Your task to perform on an android device: Show me the alarms in the clock app Image 0: 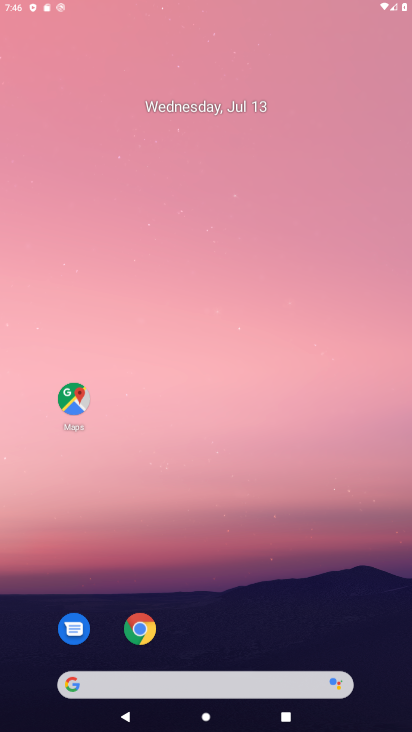
Step 0: click (108, 680)
Your task to perform on an android device: Show me the alarms in the clock app Image 1: 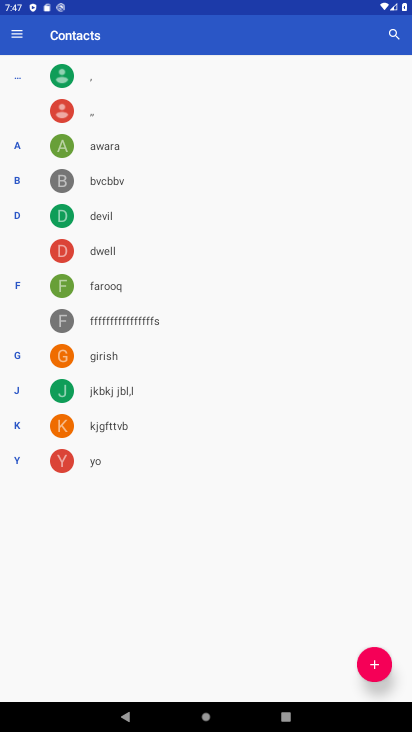
Step 1: press home button
Your task to perform on an android device: Show me the alarms in the clock app Image 2: 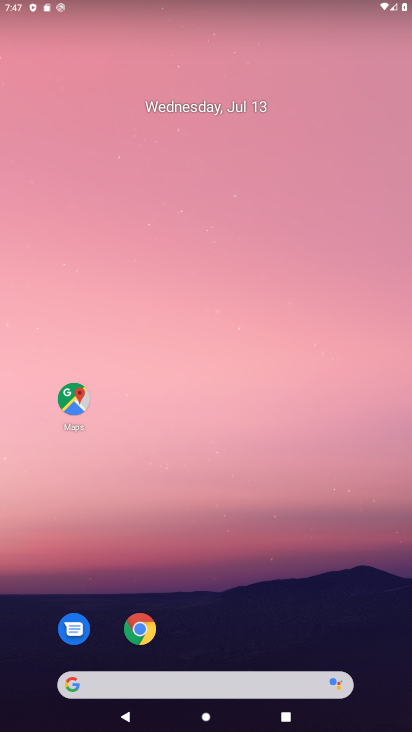
Step 2: drag from (16, 702) to (237, 69)
Your task to perform on an android device: Show me the alarms in the clock app Image 3: 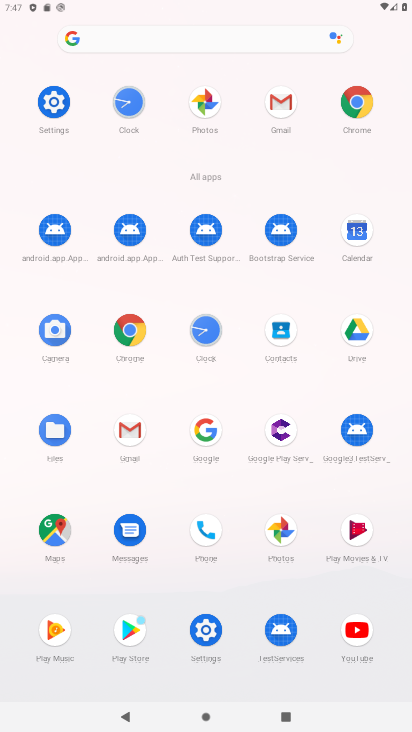
Step 3: click (198, 327)
Your task to perform on an android device: Show me the alarms in the clock app Image 4: 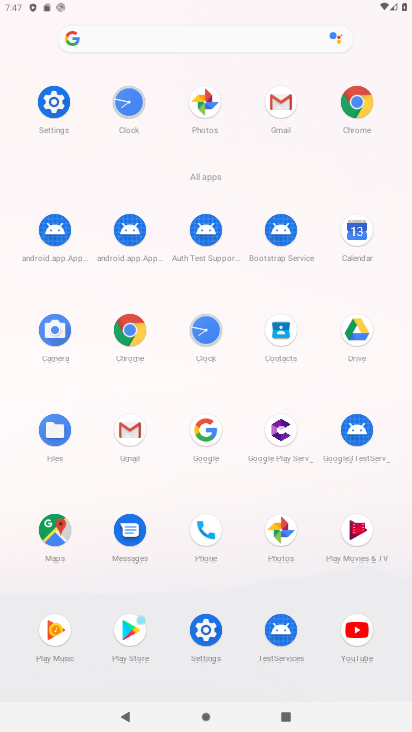
Step 4: click (198, 325)
Your task to perform on an android device: Show me the alarms in the clock app Image 5: 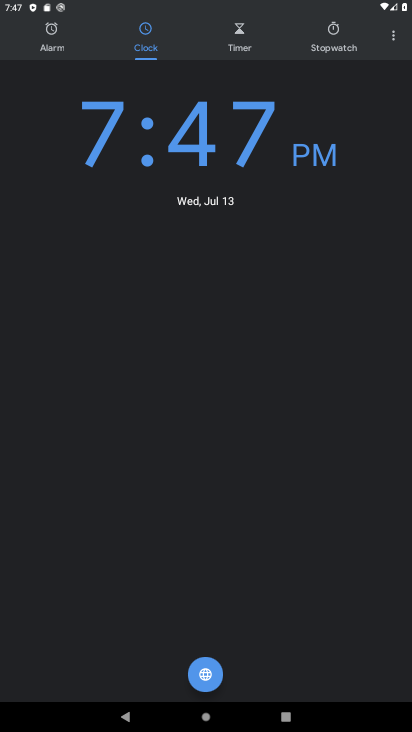
Step 5: click (53, 32)
Your task to perform on an android device: Show me the alarms in the clock app Image 6: 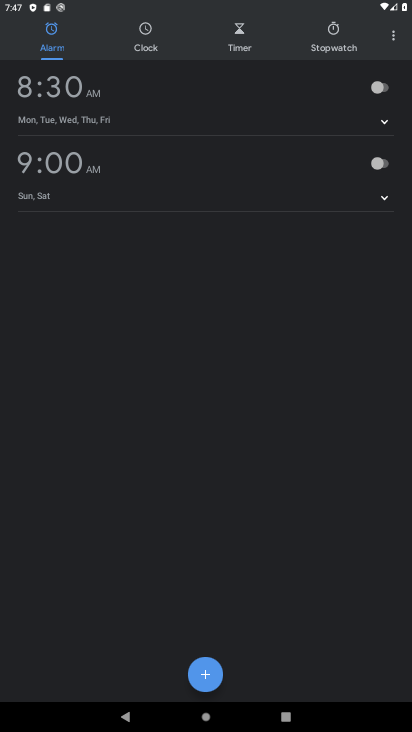
Step 6: click (381, 85)
Your task to perform on an android device: Show me the alarms in the clock app Image 7: 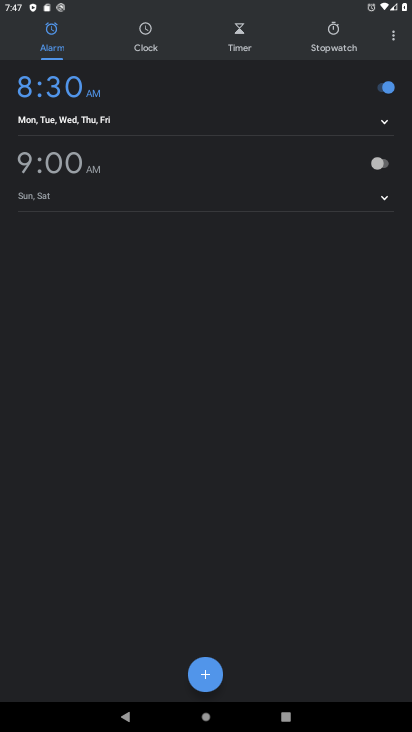
Step 7: task complete